Your task to perform on an android device: set default search engine in the chrome app Image 0: 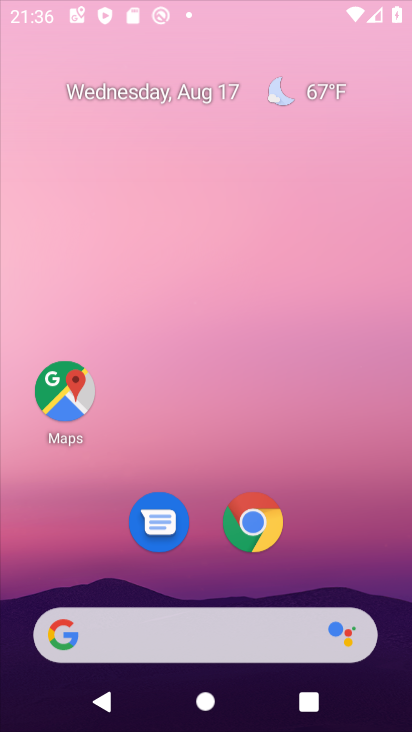
Step 0: drag from (363, 336) to (353, 1)
Your task to perform on an android device: set default search engine in the chrome app Image 1: 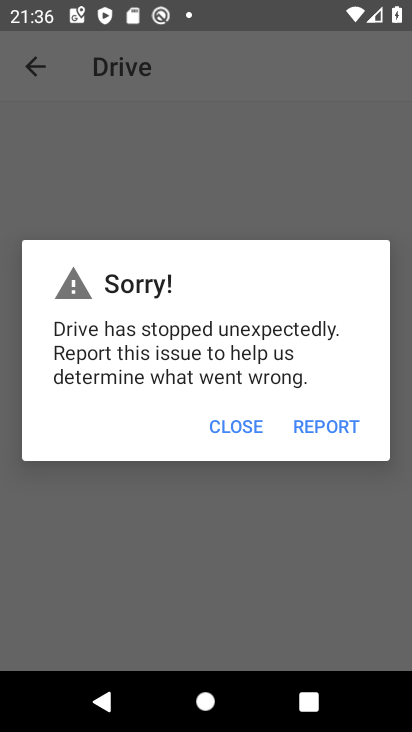
Step 1: press home button
Your task to perform on an android device: set default search engine in the chrome app Image 2: 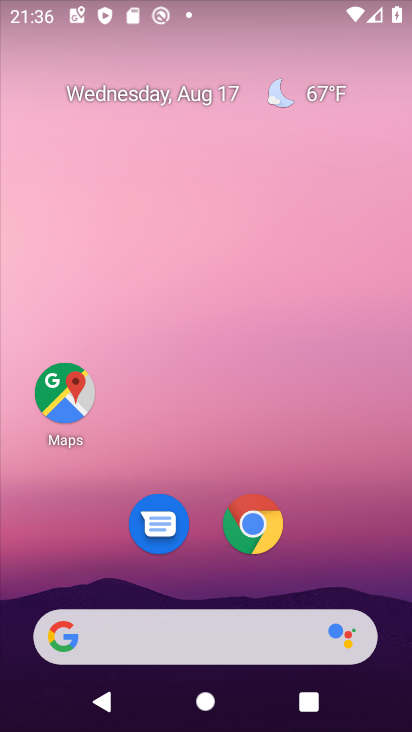
Step 2: click (252, 514)
Your task to perform on an android device: set default search engine in the chrome app Image 3: 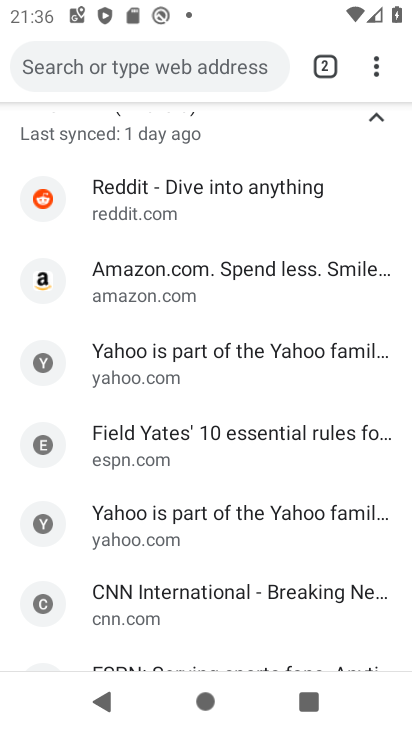
Step 3: press back button
Your task to perform on an android device: set default search engine in the chrome app Image 4: 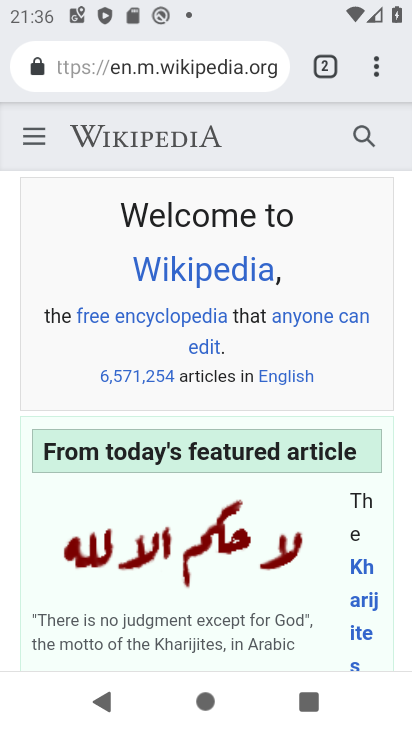
Step 4: press back button
Your task to perform on an android device: set default search engine in the chrome app Image 5: 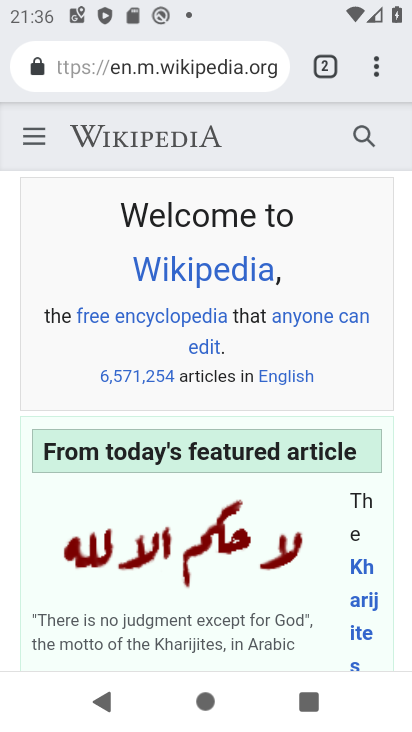
Step 5: press back button
Your task to perform on an android device: set default search engine in the chrome app Image 6: 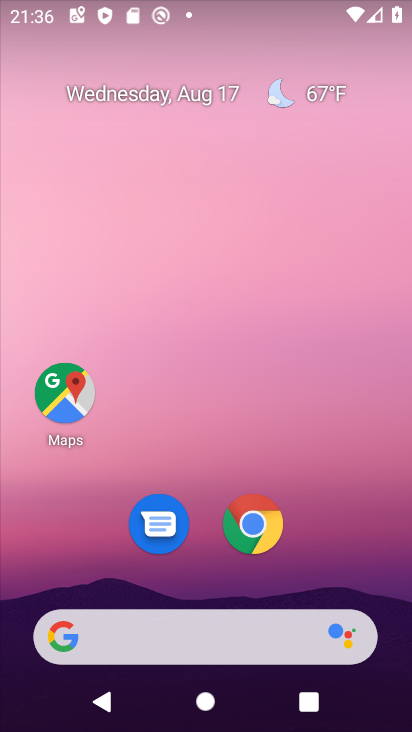
Step 6: click (258, 514)
Your task to perform on an android device: set default search engine in the chrome app Image 7: 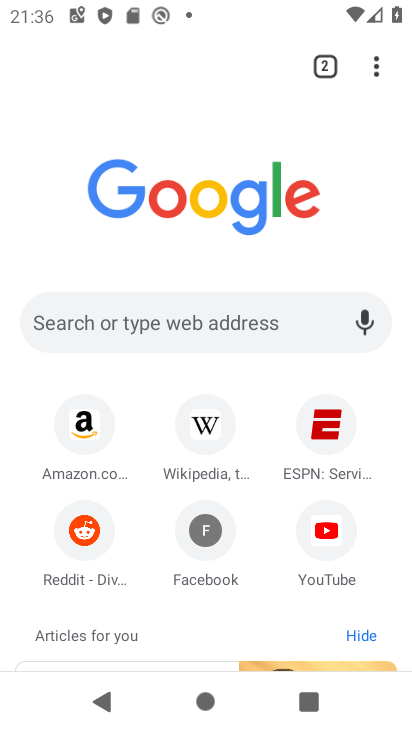
Step 7: click (379, 69)
Your task to perform on an android device: set default search engine in the chrome app Image 8: 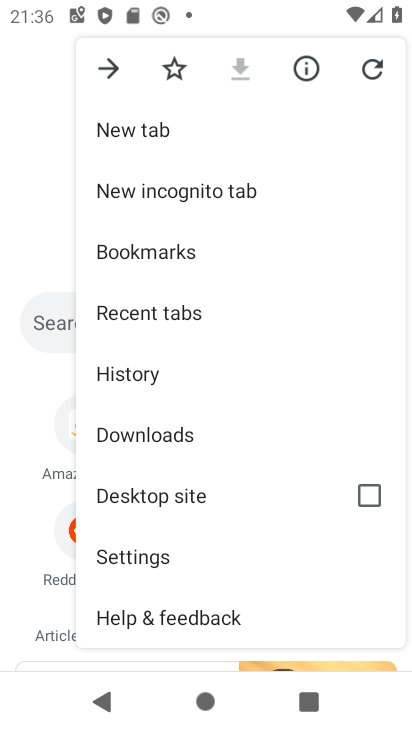
Step 8: click (153, 547)
Your task to perform on an android device: set default search engine in the chrome app Image 9: 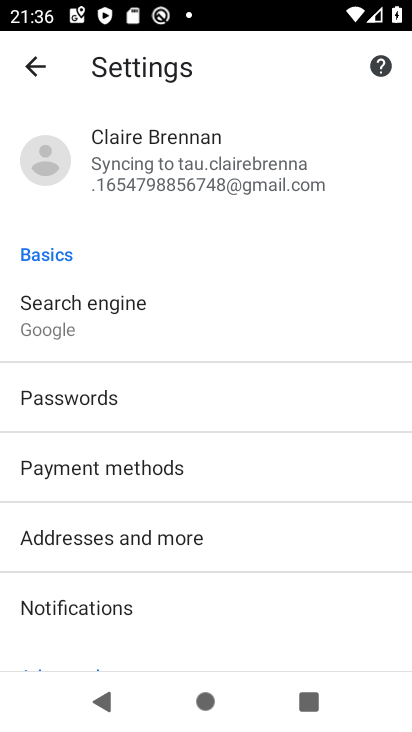
Step 9: click (128, 305)
Your task to perform on an android device: set default search engine in the chrome app Image 10: 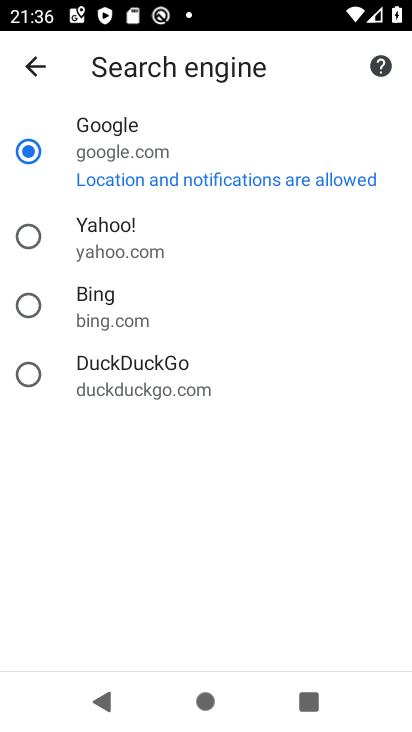
Step 10: task complete